Your task to perform on an android device: Go to ESPN.com Image 0: 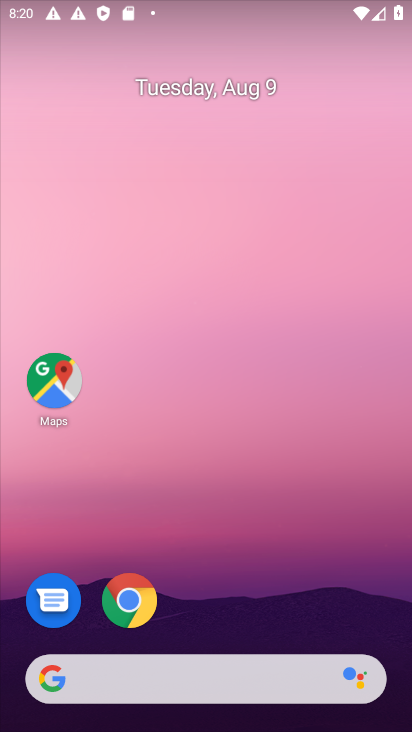
Step 0: press home button
Your task to perform on an android device: Go to ESPN.com Image 1: 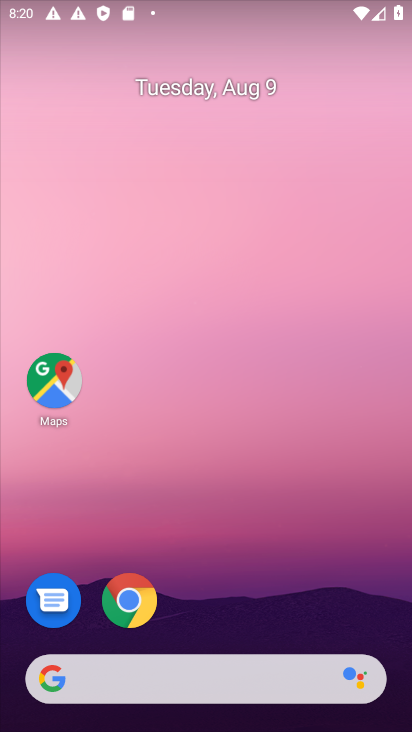
Step 1: click (51, 677)
Your task to perform on an android device: Go to ESPN.com Image 2: 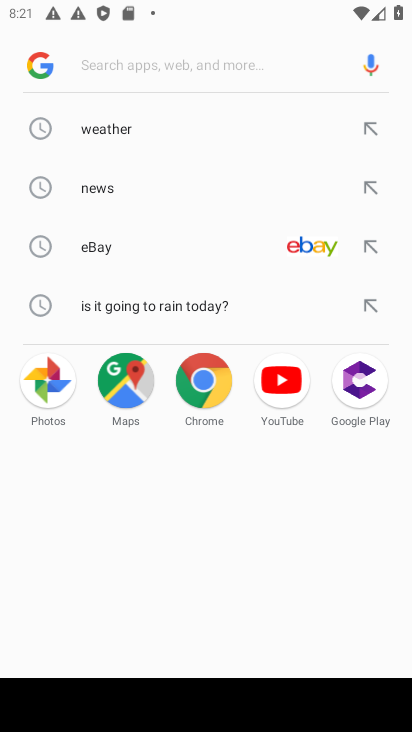
Step 2: type " ESPN.com"
Your task to perform on an android device: Go to ESPN.com Image 3: 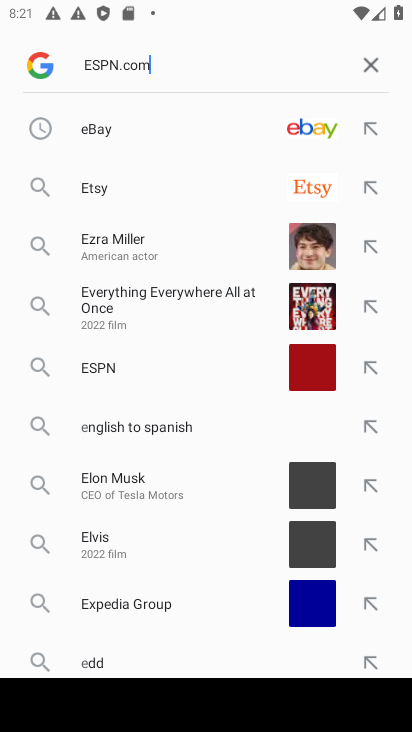
Step 3: press enter
Your task to perform on an android device: Go to ESPN.com Image 4: 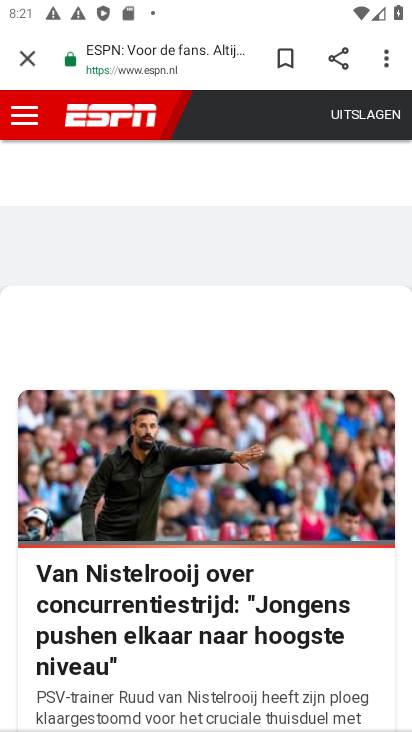
Step 4: task complete